Your task to perform on an android device: turn on notifications settings in the gmail app Image 0: 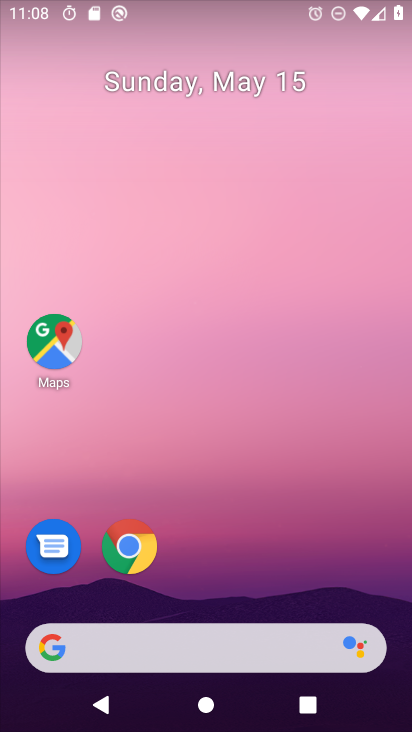
Step 0: drag from (303, 541) to (294, 57)
Your task to perform on an android device: turn on notifications settings in the gmail app Image 1: 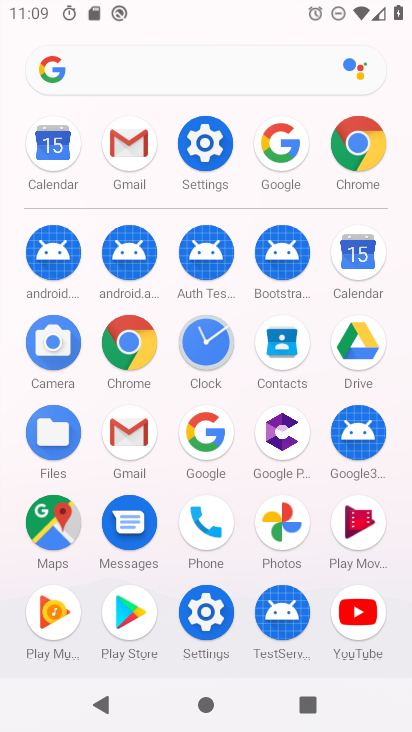
Step 1: click (127, 439)
Your task to perform on an android device: turn on notifications settings in the gmail app Image 2: 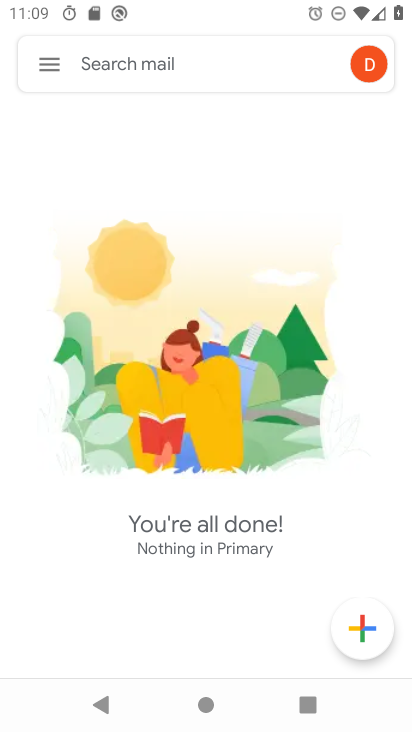
Step 2: click (42, 65)
Your task to perform on an android device: turn on notifications settings in the gmail app Image 3: 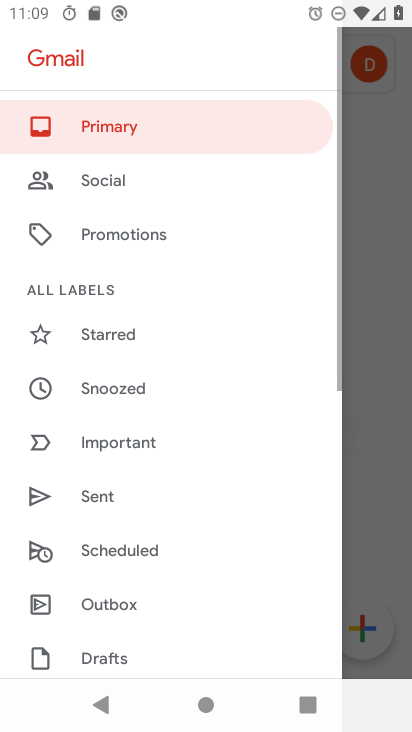
Step 3: drag from (166, 570) to (275, 136)
Your task to perform on an android device: turn on notifications settings in the gmail app Image 4: 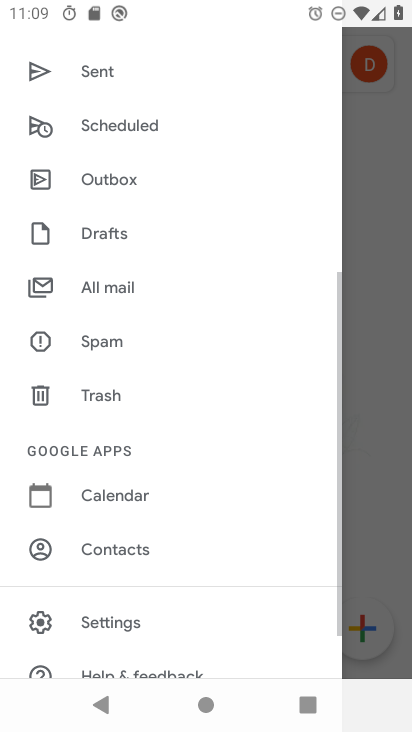
Step 4: drag from (169, 506) to (319, 202)
Your task to perform on an android device: turn on notifications settings in the gmail app Image 5: 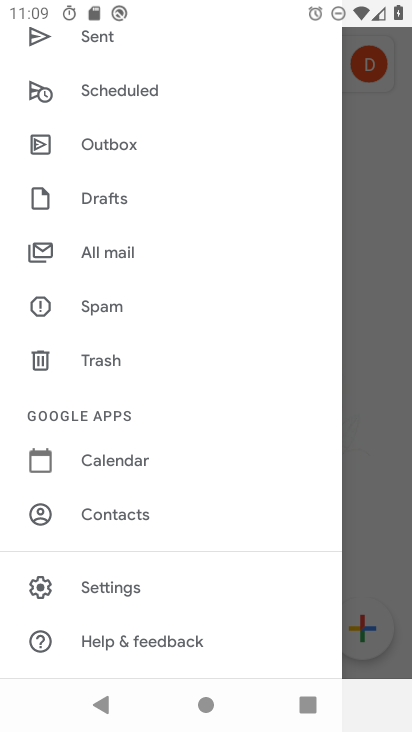
Step 5: click (128, 590)
Your task to perform on an android device: turn on notifications settings in the gmail app Image 6: 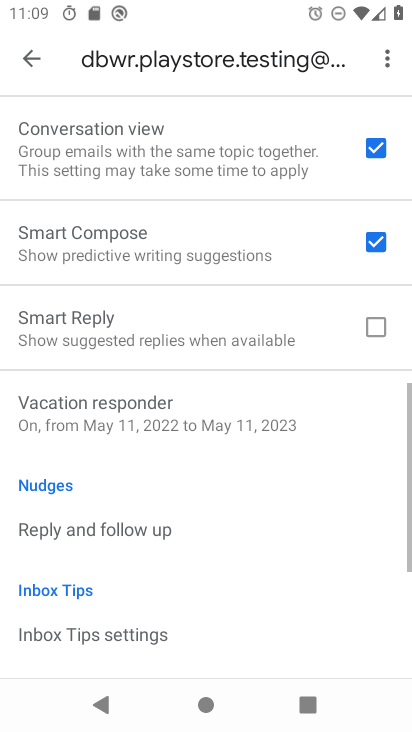
Step 6: drag from (216, 185) to (209, 622)
Your task to perform on an android device: turn on notifications settings in the gmail app Image 7: 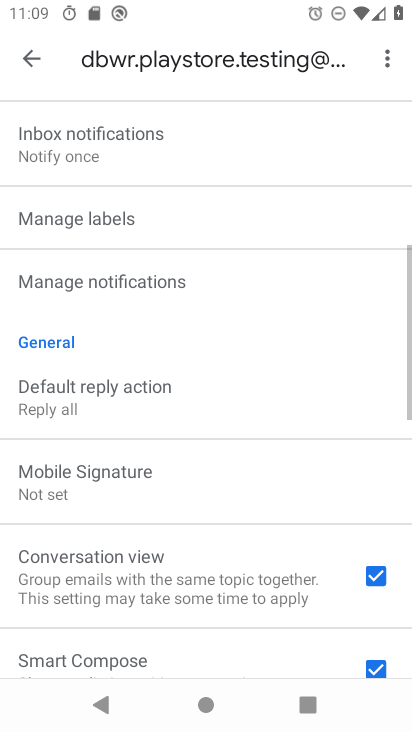
Step 7: drag from (182, 293) to (206, 578)
Your task to perform on an android device: turn on notifications settings in the gmail app Image 8: 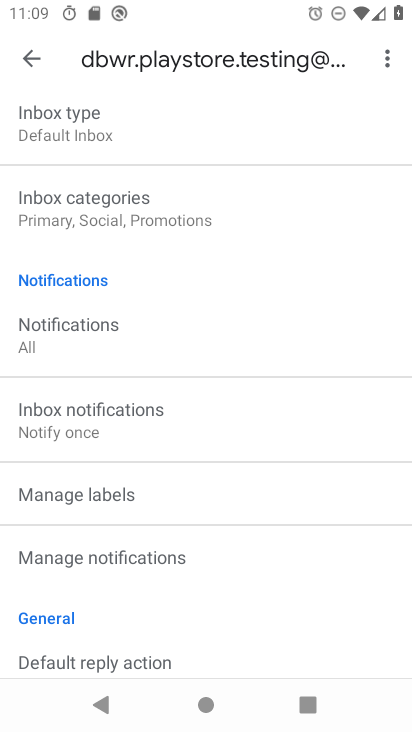
Step 8: drag from (261, 266) to (235, 558)
Your task to perform on an android device: turn on notifications settings in the gmail app Image 9: 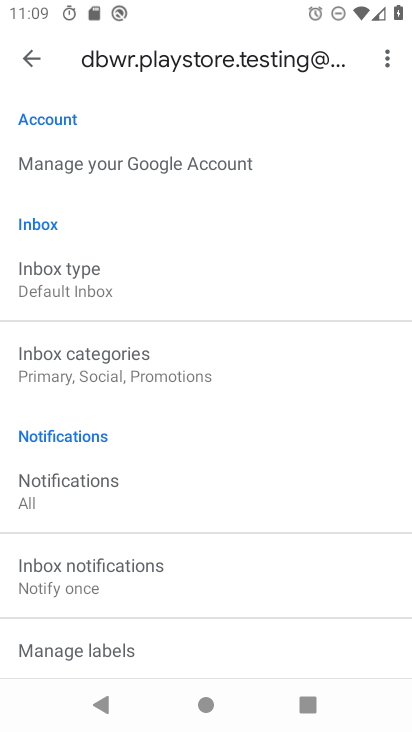
Step 9: drag from (177, 553) to (290, 215)
Your task to perform on an android device: turn on notifications settings in the gmail app Image 10: 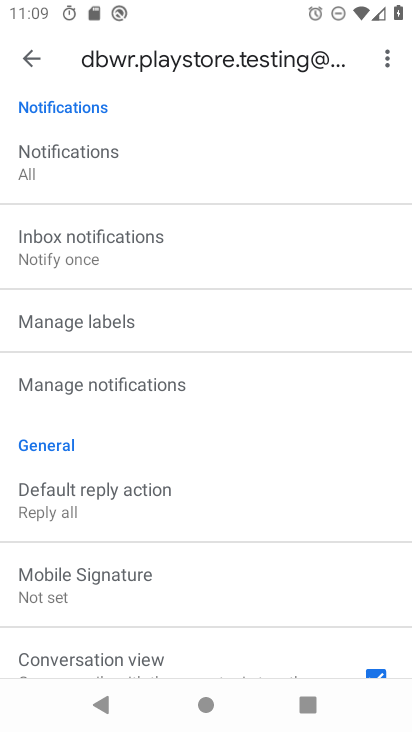
Step 10: click (137, 395)
Your task to perform on an android device: turn on notifications settings in the gmail app Image 11: 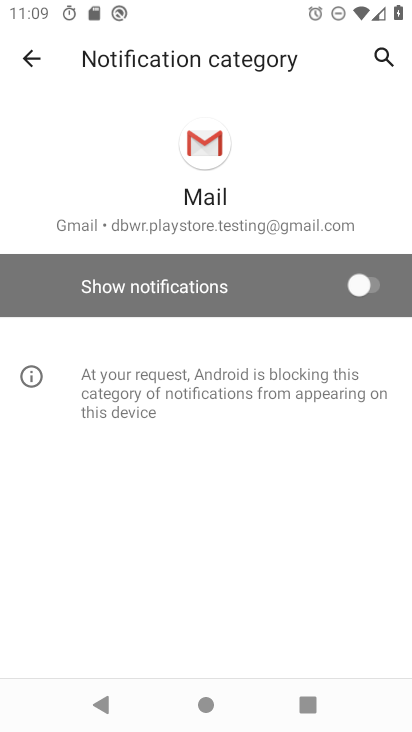
Step 11: click (337, 272)
Your task to perform on an android device: turn on notifications settings in the gmail app Image 12: 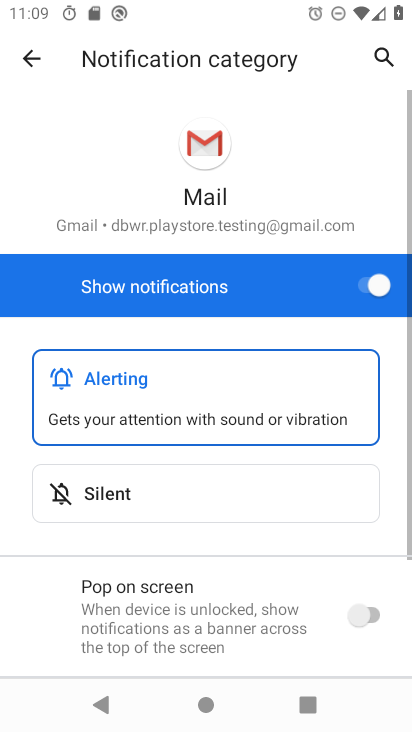
Step 12: task complete